Your task to perform on an android device: Go to internet settings Image 0: 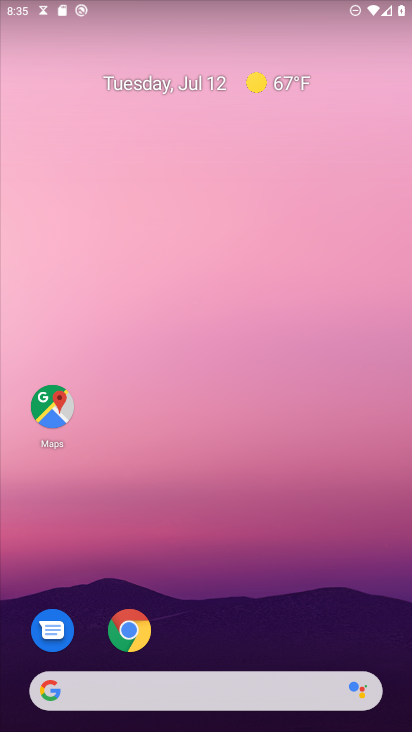
Step 0: drag from (254, 639) to (181, 190)
Your task to perform on an android device: Go to internet settings Image 1: 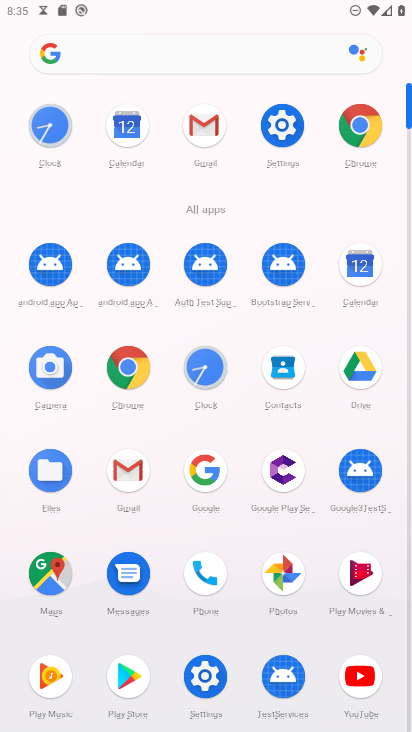
Step 1: click (290, 114)
Your task to perform on an android device: Go to internet settings Image 2: 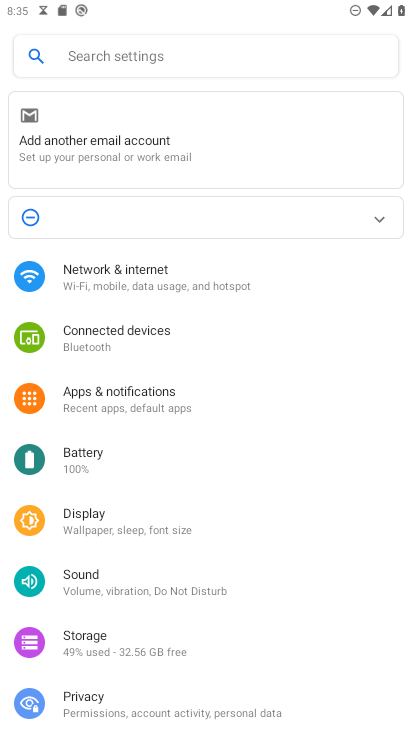
Step 2: click (214, 290)
Your task to perform on an android device: Go to internet settings Image 3: 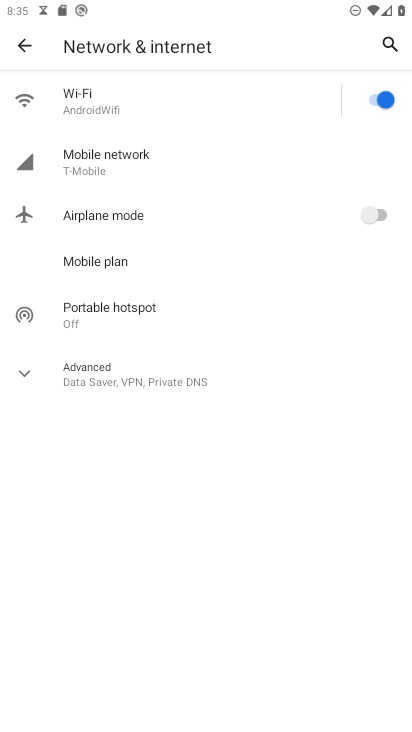
Step 3: task complete